Your task to perform on an android device: change timer sound Image 0: 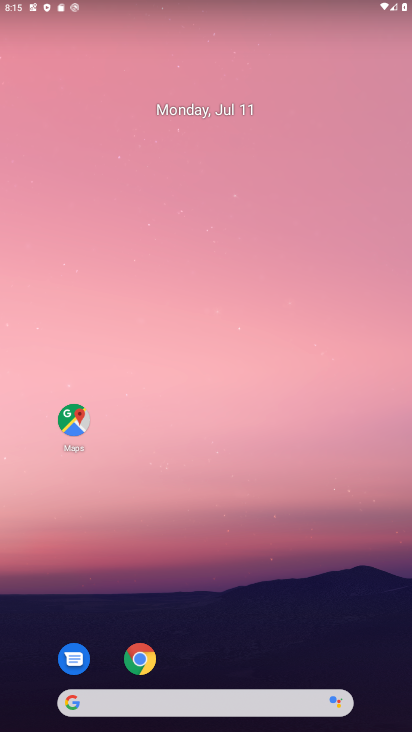
Step 0: drag from (169, 671) to (266, 97)
Your task to perform on an android device: change timer sound Image 1: 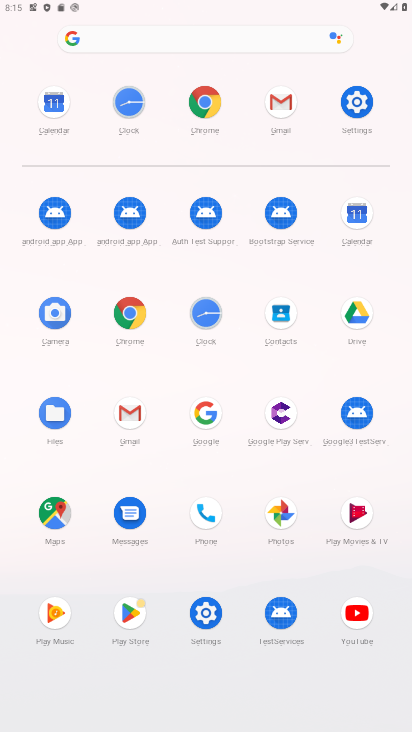
Step 1: click (199, 310)
Your task to perform on an android device: change timer sound Image 2: 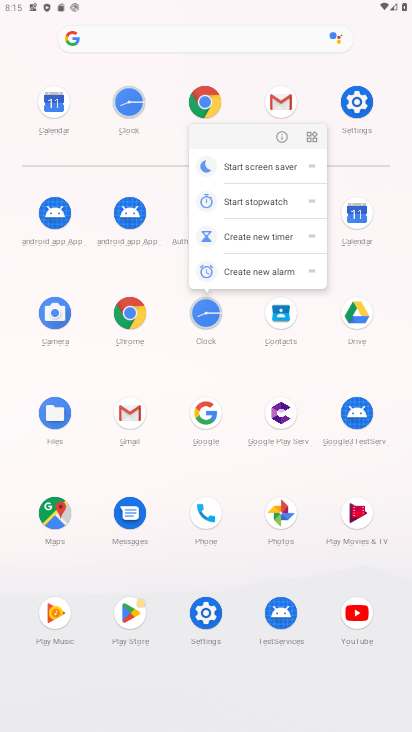
Step 2: click (284, 130)
Your task to perform on an android device: change timer sound Image 3: 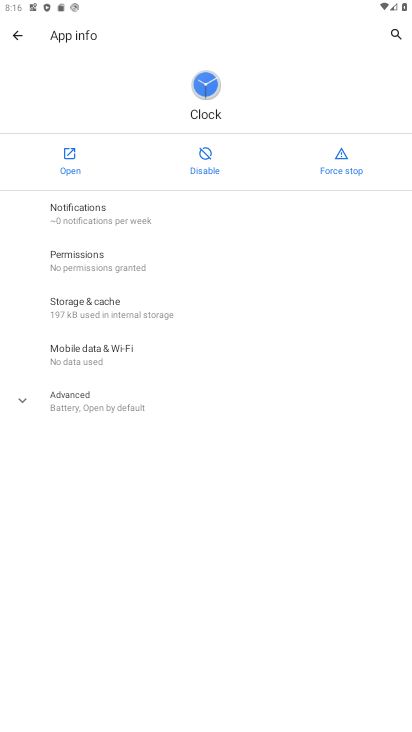
Step 3: click (59, 164)
Your task to perform on an android device: change timer sound Image 4: 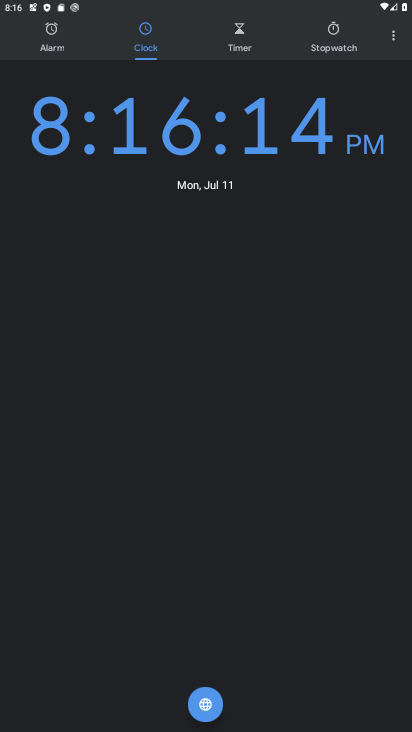
Step 4: click (390, 40)
Your task to perform on an android device: change timer sound Image 5: 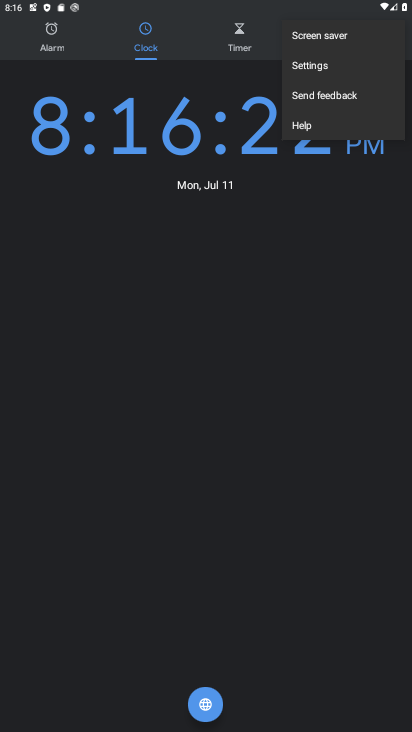
Step 5: click (299, 72)
Your task to perform on an android device: change timer sound Image 6: 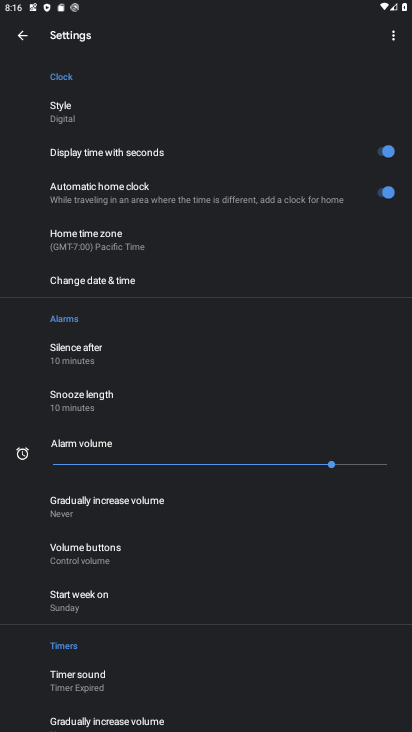
Step 6: drag from (154, 599) to (219, 326)
Your task to perform on an android device: change timer sound Image 7: 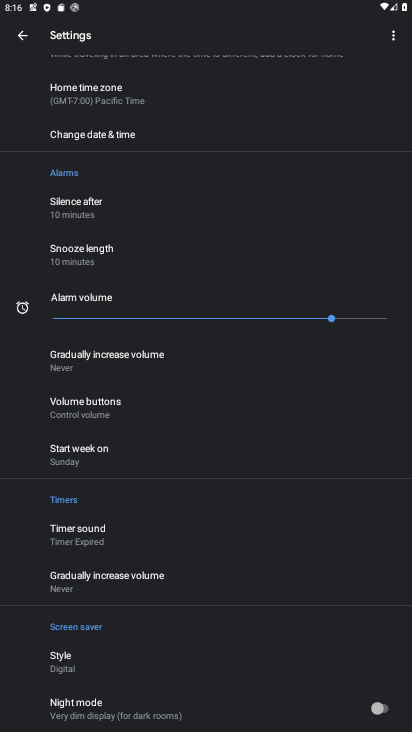
Step 7: click (100, 537)
Your task to perform on an android device: change timer sound Image 8: 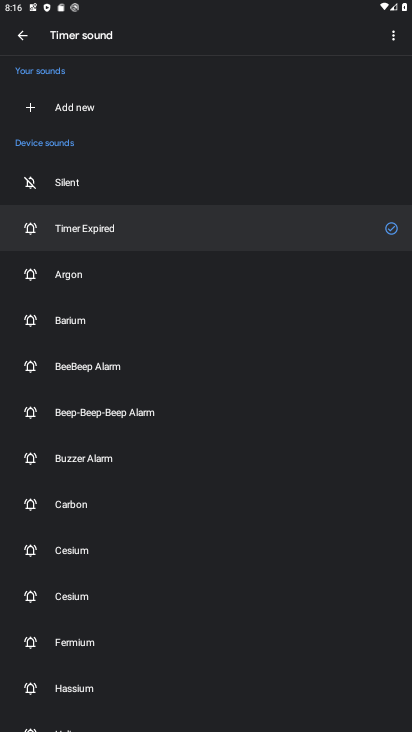
Step 8: drag from (221, 601) to (249, 99)
Your task to perform on an android device: change timer sound Image 9: 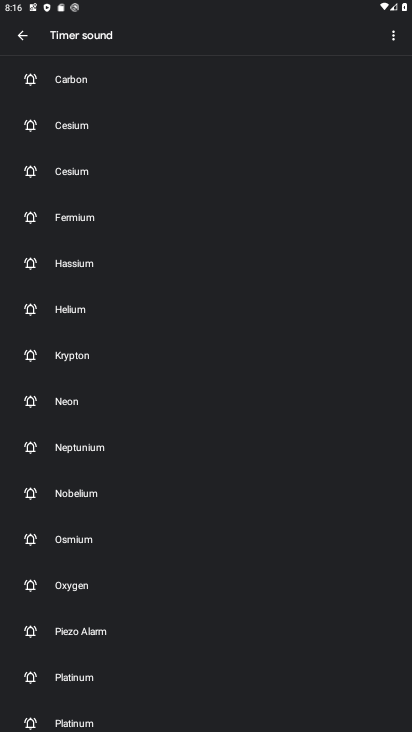
Step 9: drag from (212, 499) to (242, 245)
Your task to perform on an android device: change timer sound Image 10: 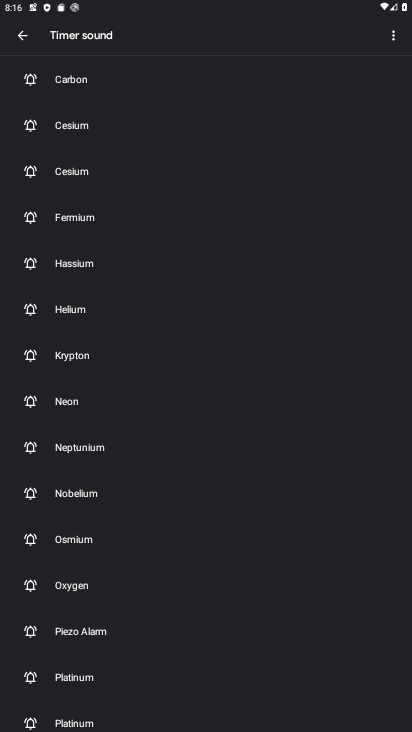
Step 10: drag from (190, 611) to (205, 225)
Your task to perform on an android device: change timer sound Image 11: 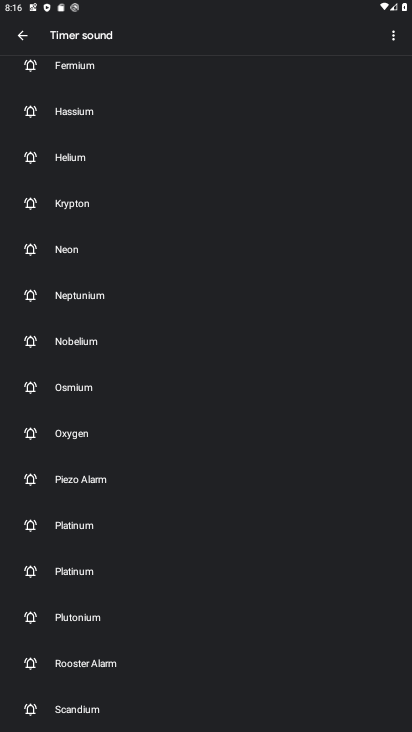
Step 11: drag from (173, 537) to (224, 135)
Your task to perform on an android device: change timer sound Image 12: 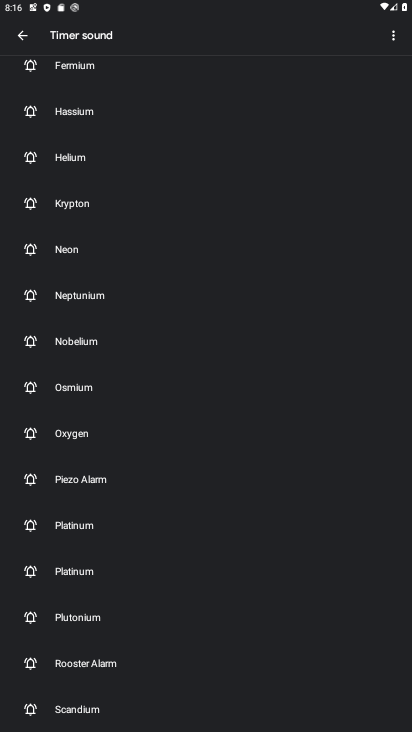
Step 12: drag from (190, 205) to (270, 642)
Your task to perform on an android device: change timer sound Image 13: 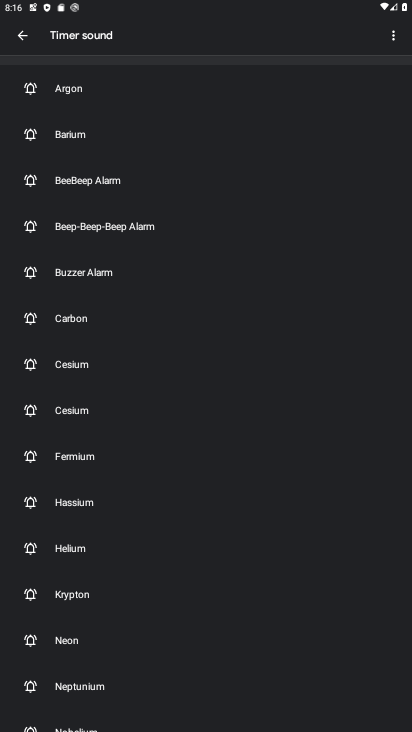
Step 13: click (103, 189)
Your task to perform on an android device: change timer sound Image 14: 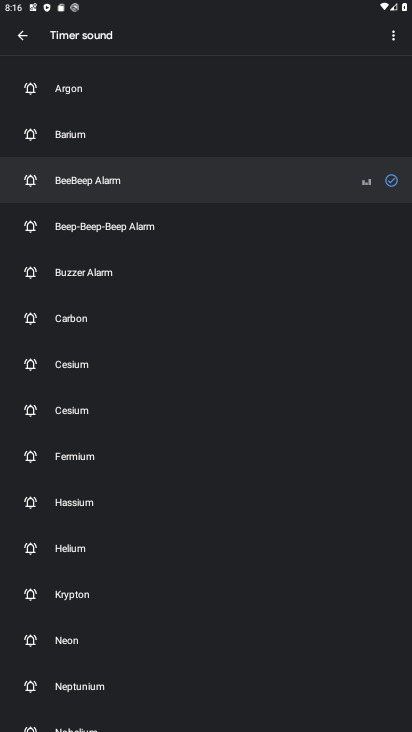
Step 14: task complete